Your task to perform on an android device: Open ESPN.com Image 0: 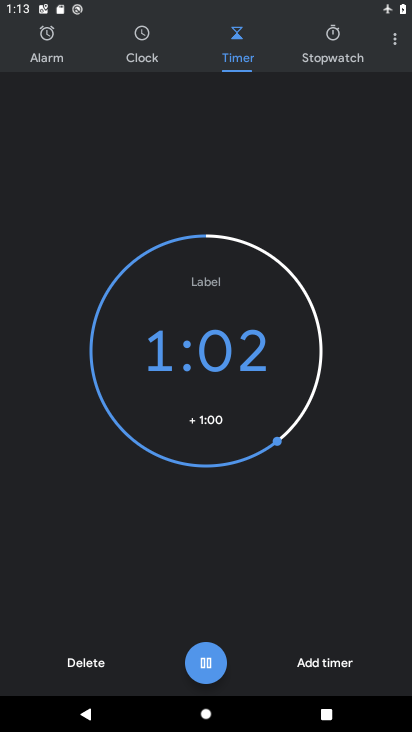
Step 0: press home button
Your task to perform on an android device: Open ESPN.com Image 1: 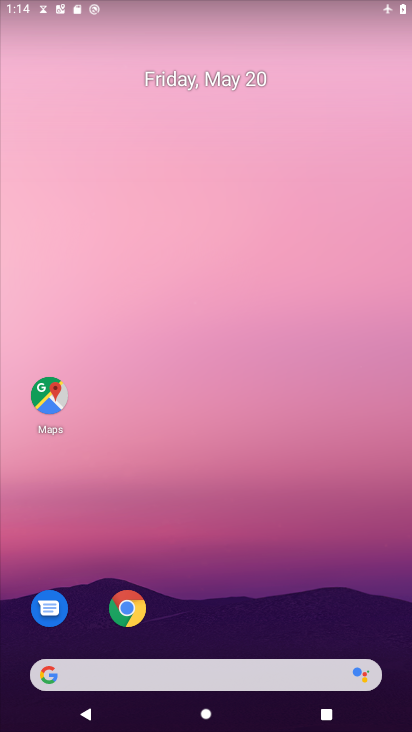
Step 1: drag from (169, 604) to (219, 196)
Your task to perform on an android device: Open ESPN.com Image 2: 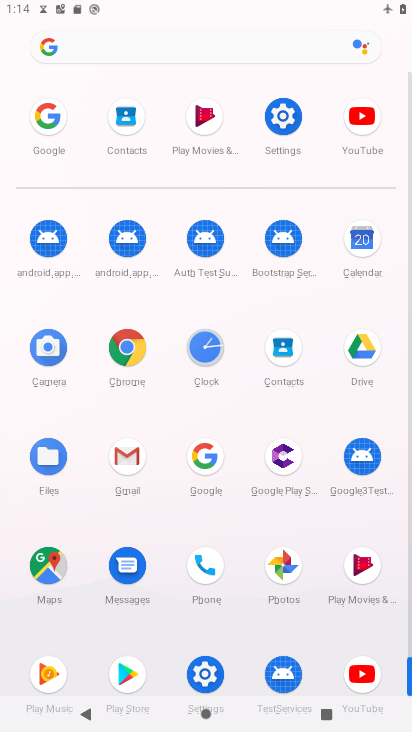
Step 2: click (213, 459)
Your task to perform on an android device: Open ESPN.com Image 3: 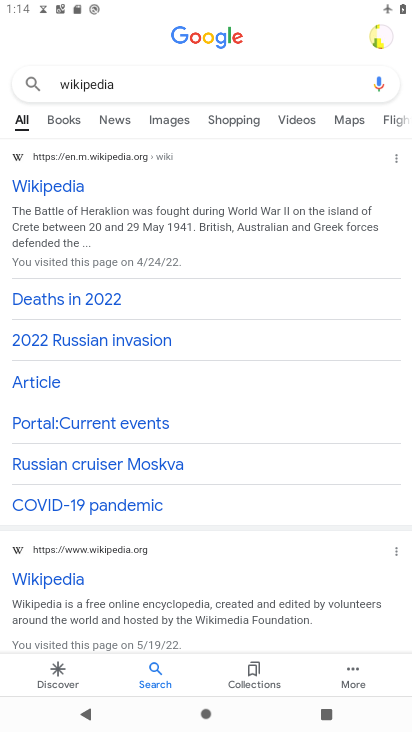
Step 3: click (180, 89)
Your task to perform on an android device: Open ESPN.com Image 4: 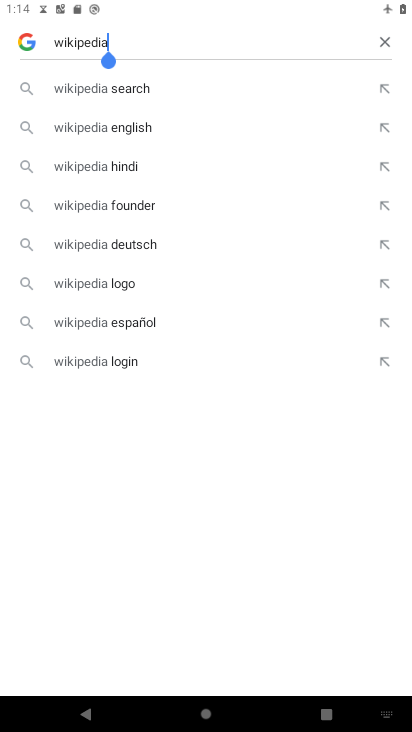
Step 4: click (390, 43)
Your task to perform on an android device: Open ESPN.com Image 5: 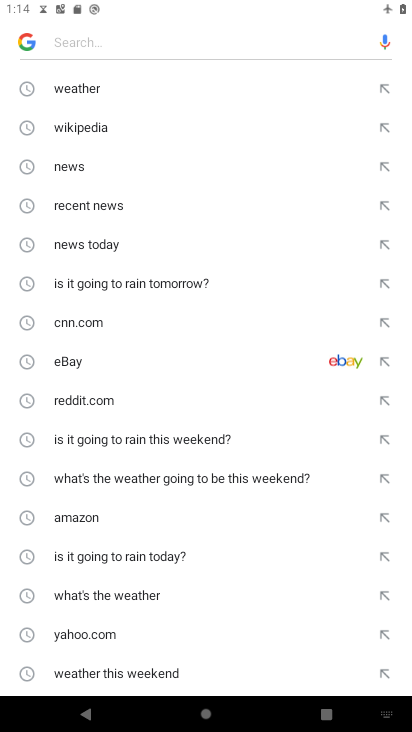
Step 5: drag from (133, 566) to (159, 179)
Your task to perform on an android device: Open ESPN.com Image 6: 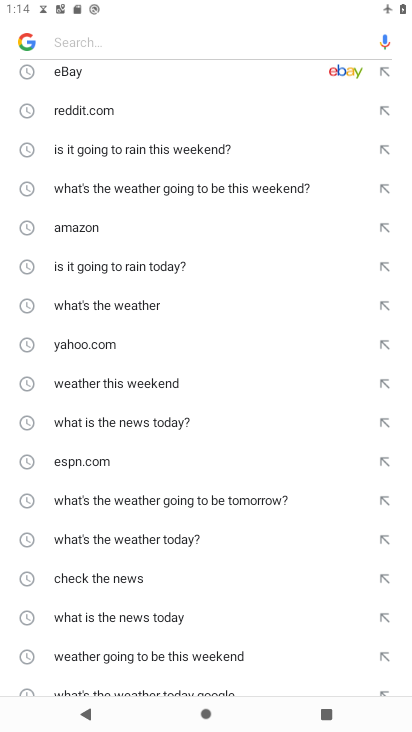
Step 6: click (88, 463)
Your task to perform on an android device: Open ESPN.com Image 7: 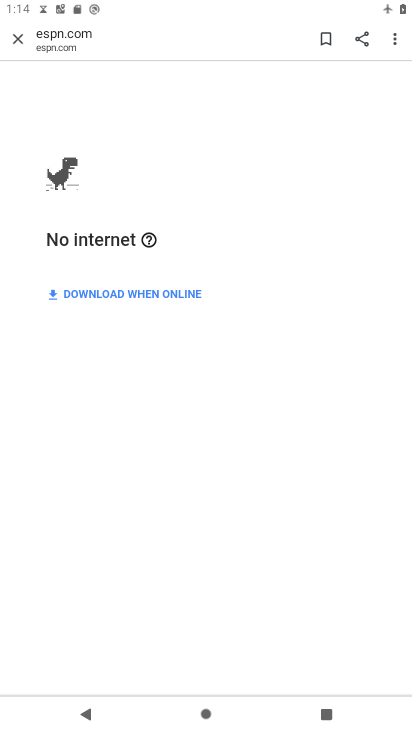
Step 7: task complete